Your task to perform on an android device: Go to CNN.com Image 0: 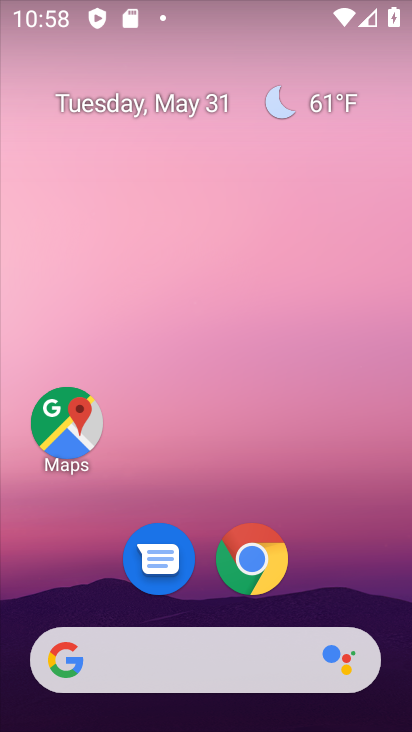
Step 0: drag from (250, 616) to (315, 16)
Your task to perform on an android device: Go to CNN.com Image 1: 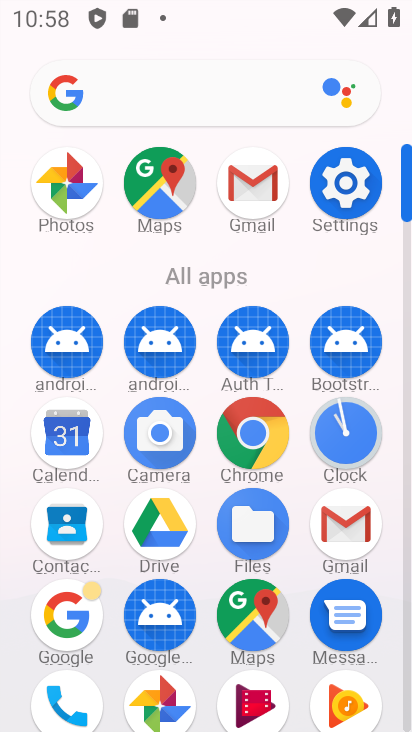
Step 1: click (258, 420)
Your task to perform on an android device: Go to CNN.com Image 2: 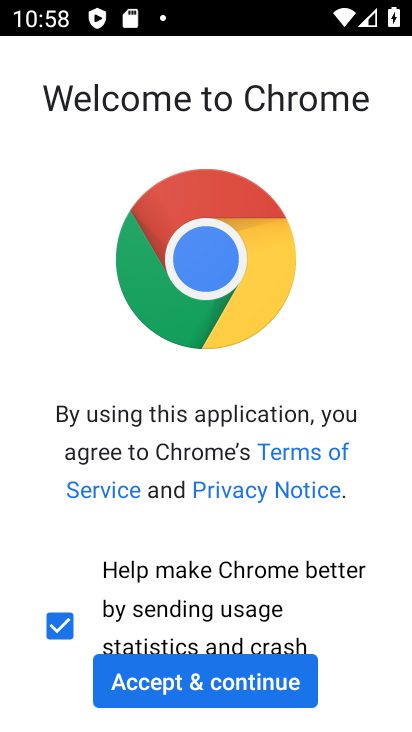
Step 2: click (256, 679)
Your task to perform on an android device: Go to CNN.com Image 3: 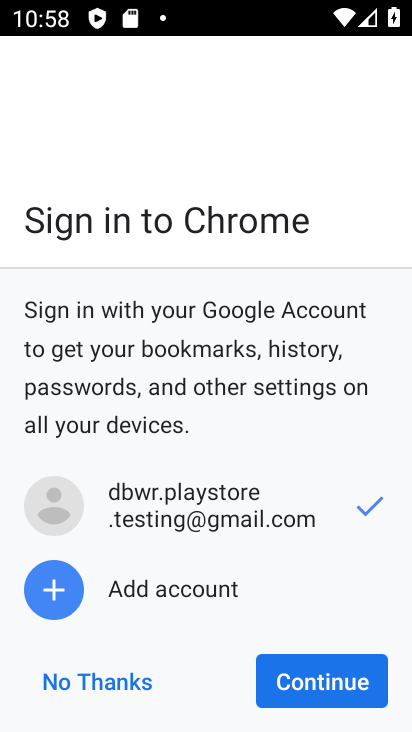
Step 3: click (114, 679)
Your task to perform on an android device: Go to CNN.com Image 4: 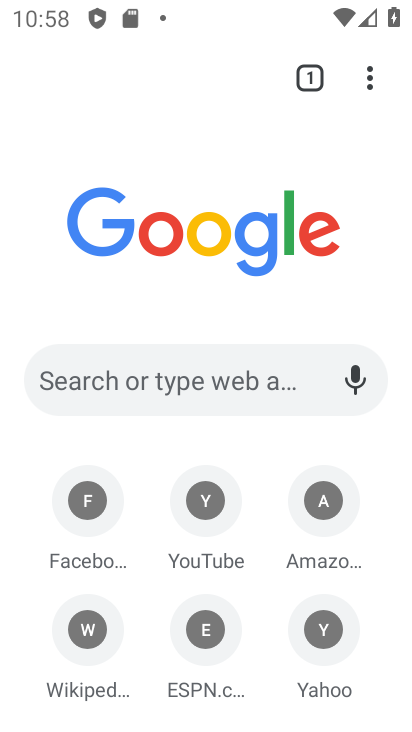
Step 4: click (216, 79)
Your task to perform on an android device: Go to CNN.com Image 5: 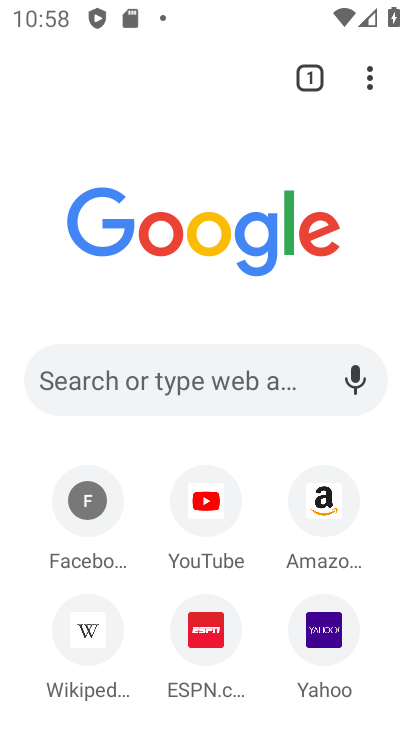
Step 5: click (248, 389)
Your task to perform on an android device: Go to CNN.com Image 6: 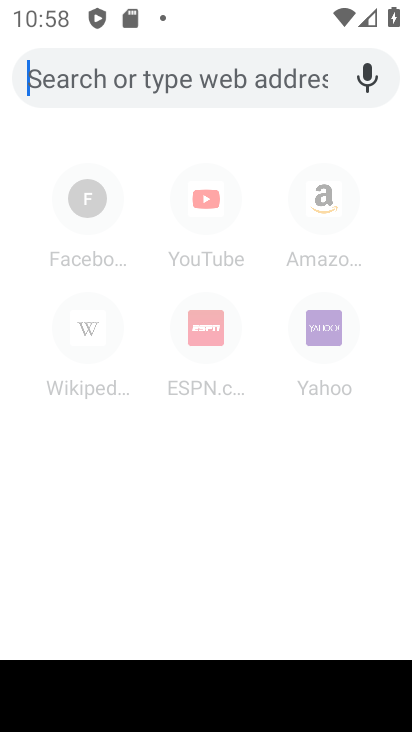
Step 6: type "cnn.com"
Your task to perform on an android device: Go to CNN.com Image 7: 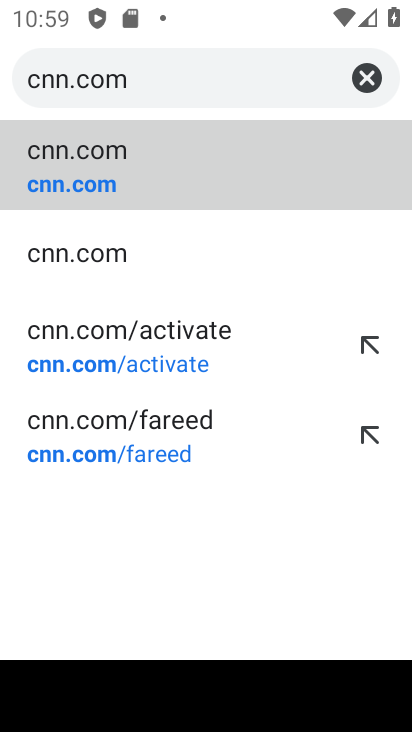
Step 7: click (91, 175)
Your task to perform on an android device: Go to CNN.com Image 8: 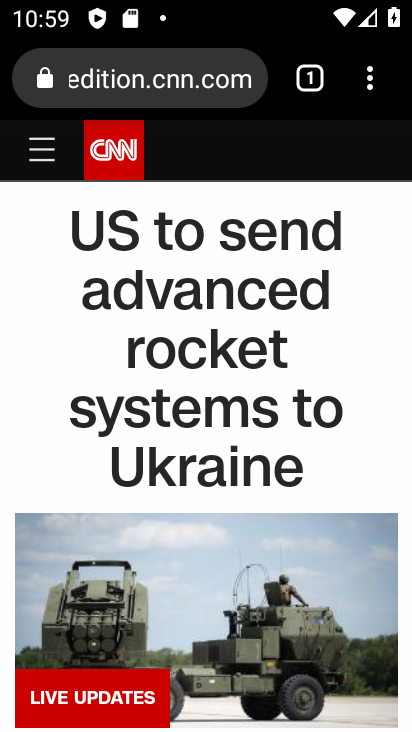
Step 8: task complete